Your task to perform on an android device: Open my contact list Image 0: 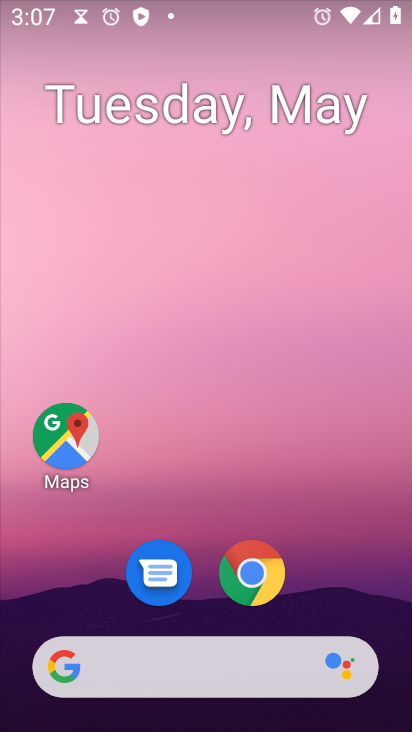
Step 0: drag from (259, 540) to (261, 20)
Your task to perform on an android device: Open my contact list Image 1: 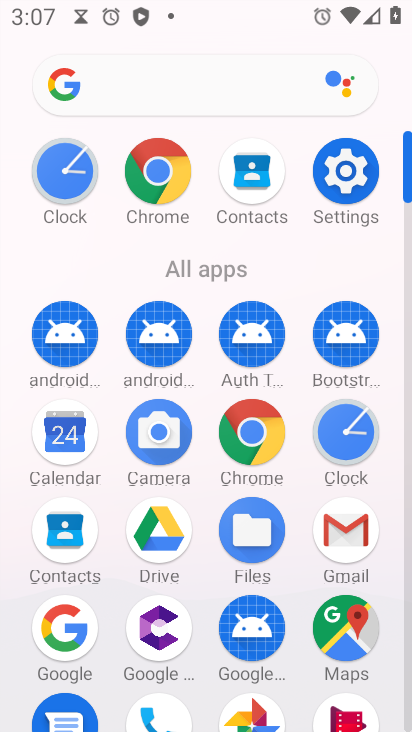
Step 1: click (256, 172)
Your task to perform on an android device: Open my contact list Image 2: 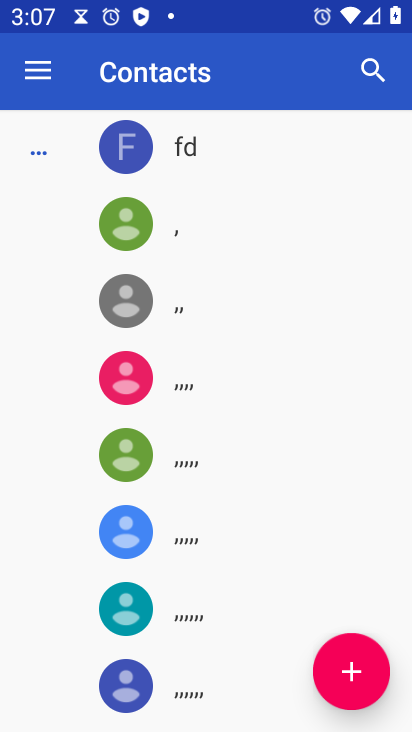
Step 2: task complete